Your task to perform on an android device: delete the emails in spam in the gmail app Image 0: 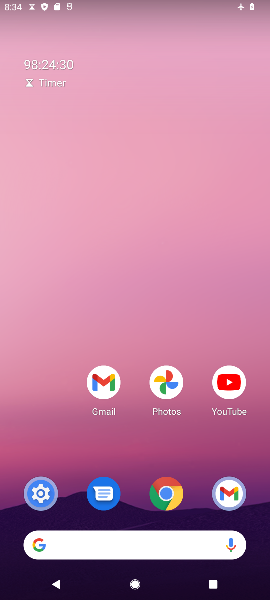
Step 0: drag from (115, 530) to (136, 158)
Your task to perform on an android device: delete the emails in spam in the gmail app Image 1: 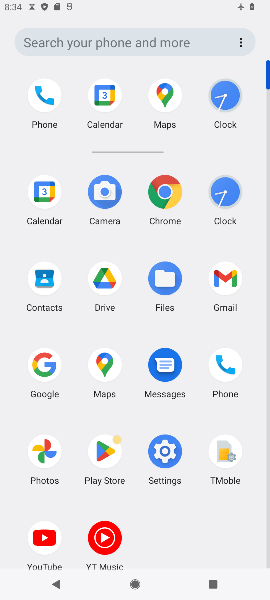
Step 1: click (234, 272)
Your task to perform on an android device: delete the emails in spam in the gmail app Image 2: 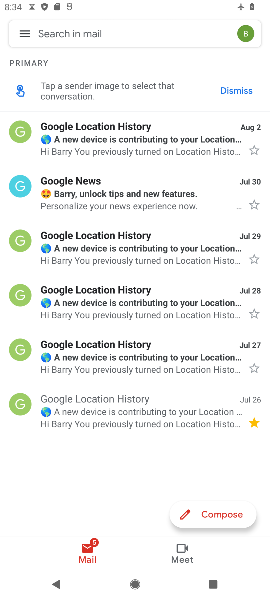
Step 2: click (17, 36)
Your task to perform on an android device: delete the emails in spam in the gmail app Image 3: 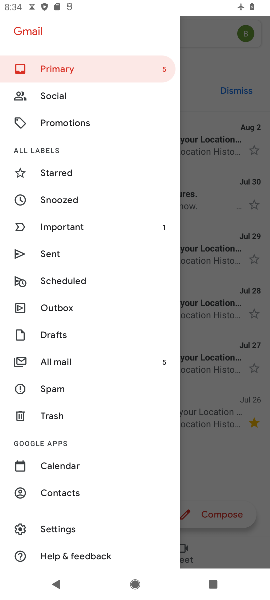
Step 3: click (61, 386)
Your task to perform on an android device: delete the emails in spam in the gmail app Image 4: 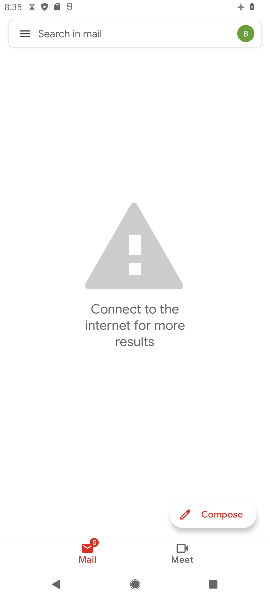
Step 4: task complete